Your task to perform on an android device: change notifications settings Image 0: 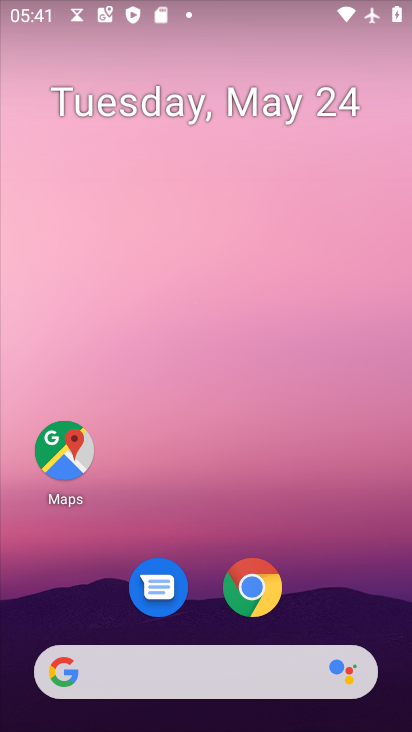
Step 0: drag from (341, 450) to (200, 2)
Your task to perform on an android device: change notifications settings Image 1: 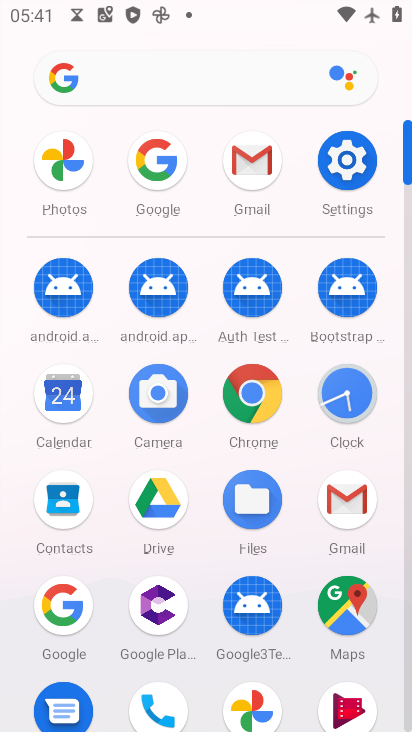
Step 1: click (341, 162)
Your task to perform on an android device: change notifications settings Image 2: 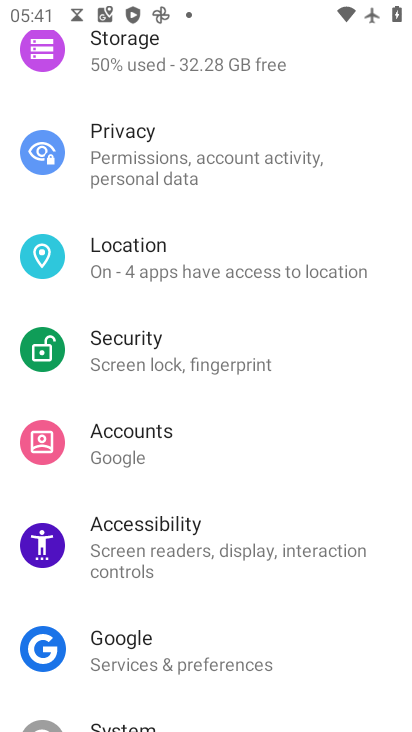
Step 2: drag from (257, 117) to (279, 730)
Your task to perform on an android device: change notifications settings Image 3: 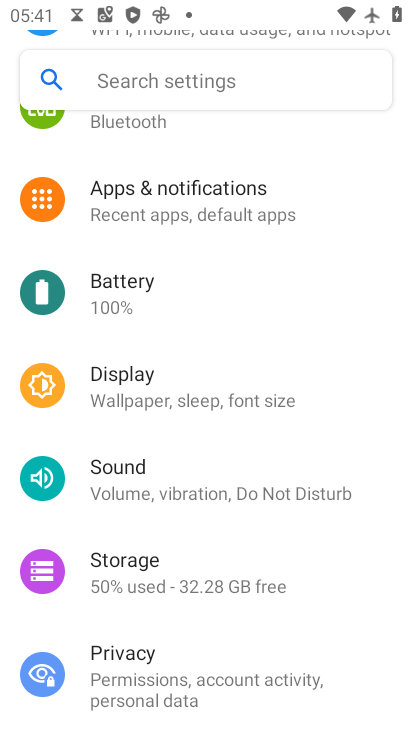
Step 3: click (204, 195)
Your task to perform on an android device: change notifications settings Image 4: 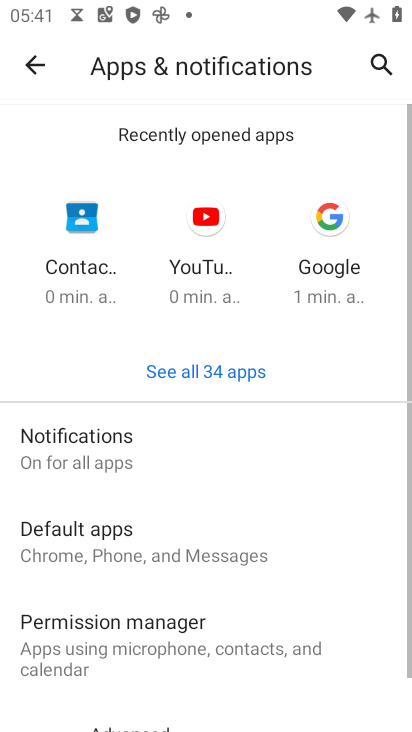
Step 4: click (163, 451)
Your task to perform on an android device: change notifications settings Image 5: 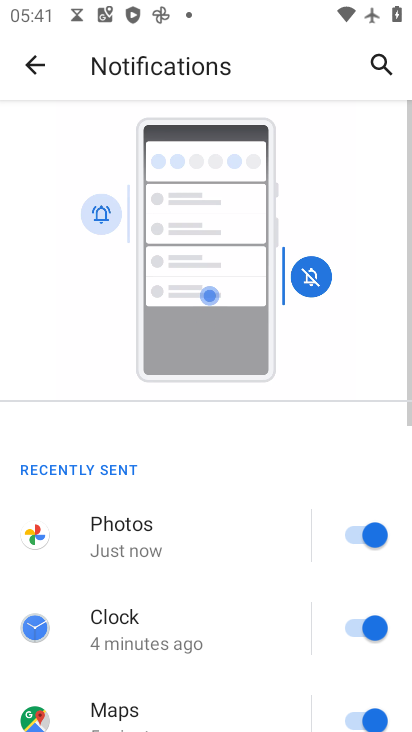
Step 5: click (366, 542)
Your task to perform on an android device: change notifications settings Image 6: 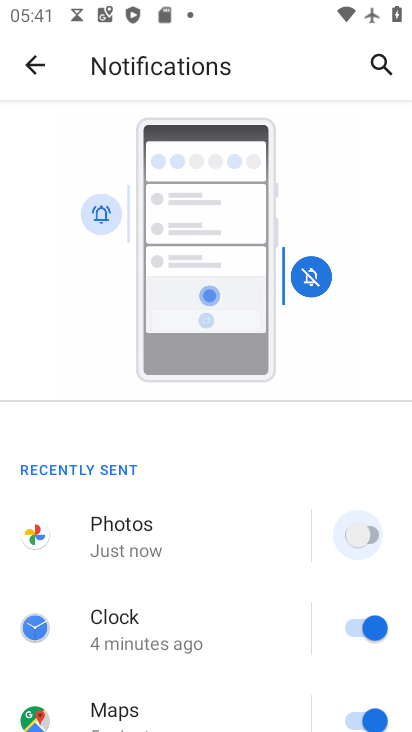
Step 6: click (363, 625)
Your task to perform on an android device: change notifications settings Image 7: 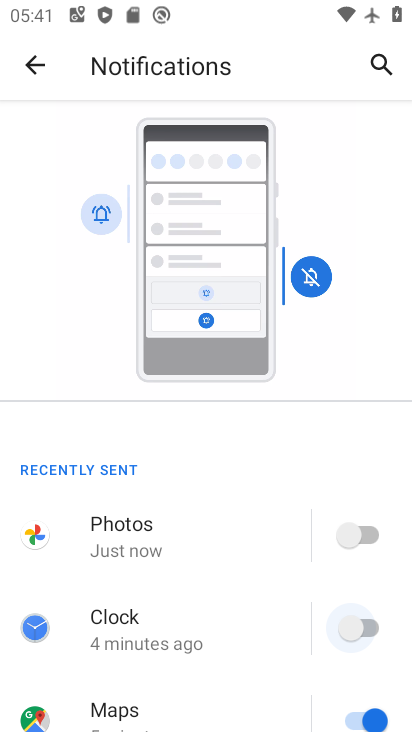
Step 7: click (373, 709)
Your task to perform on an android device: change notifications settings Image 8: 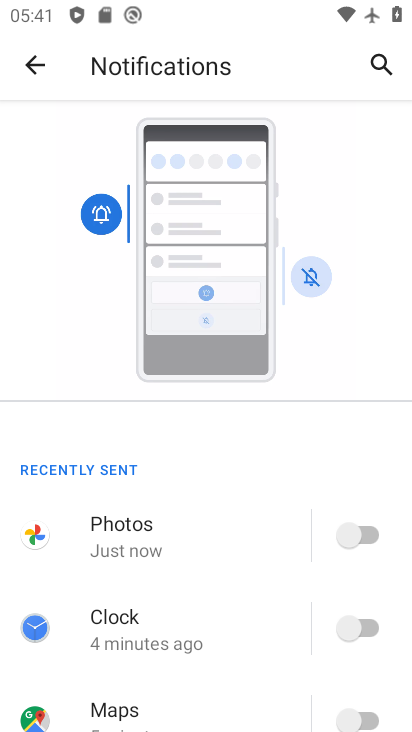
Step 8: task complete